Your task to perform on an android device: What's the weather like in Los Angeles? Image 0: 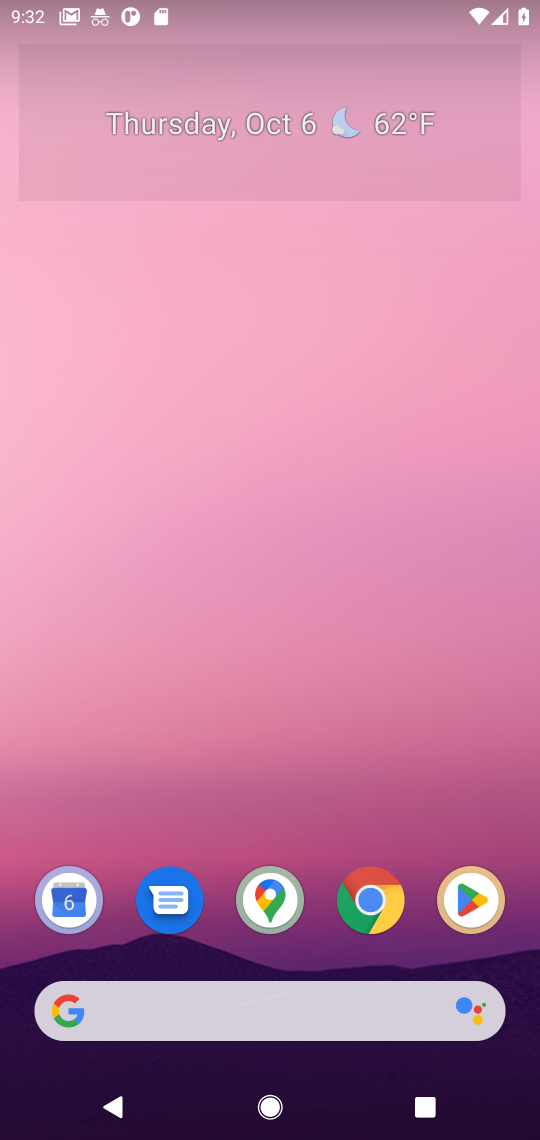
Step 0: press home button
Your task to perform on an android device: What's the weather like in Los Angeles? Image 1: 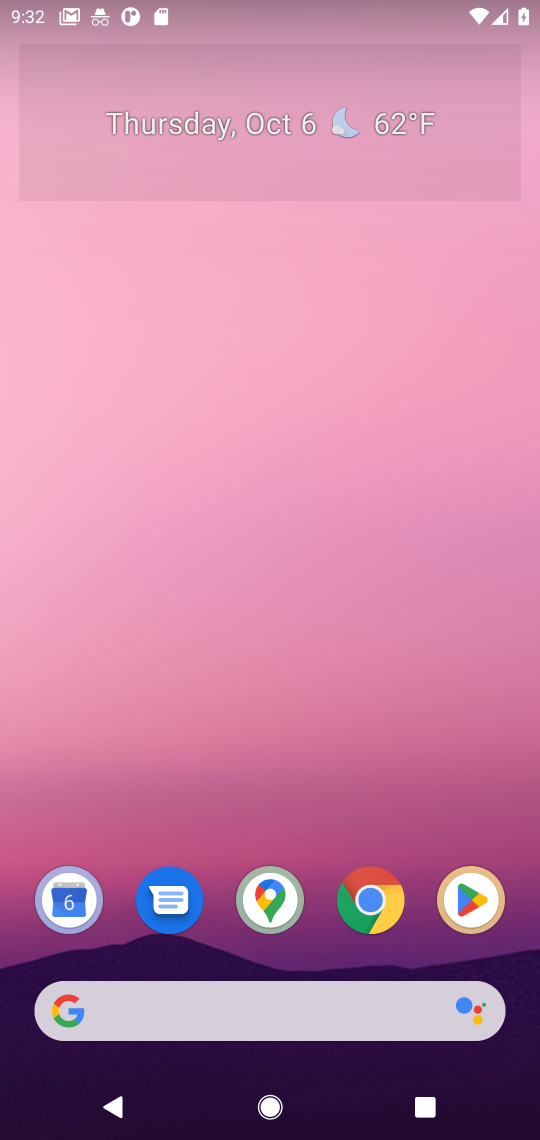
Step 1: click (304, 1023)
Your task to perform on an android device: What's the weather like in Los Angeles? Image 2: 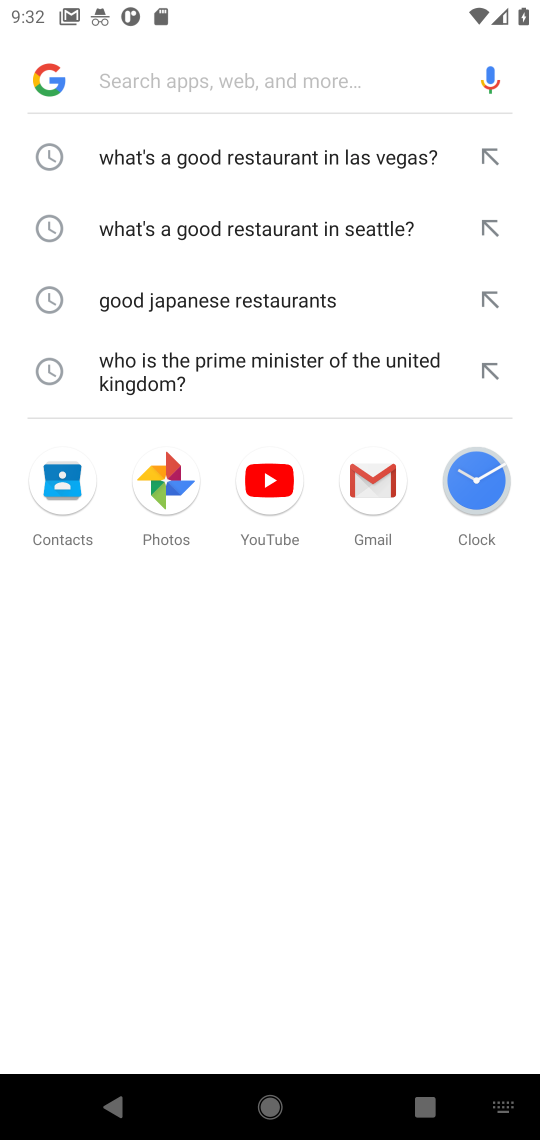
Step 2: type "What's the weather like in Los Angeles?"
Your task to perform on an android device: What's the weather like in Los Angeles? Image 3: 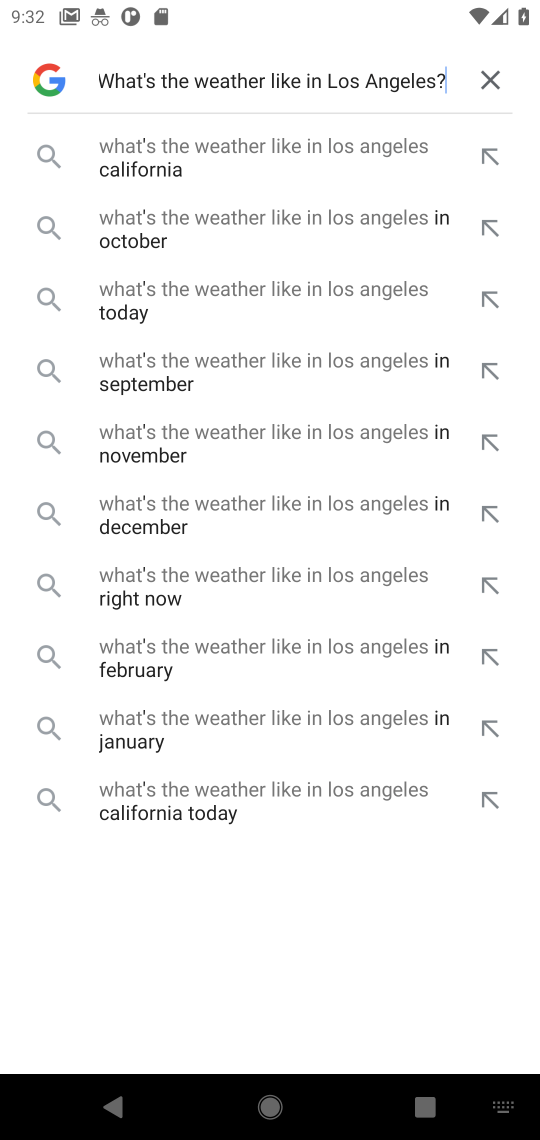
Step 3: press enter
Your task to perform on an android device: What's the weather like in Los Angeles? Image 4: 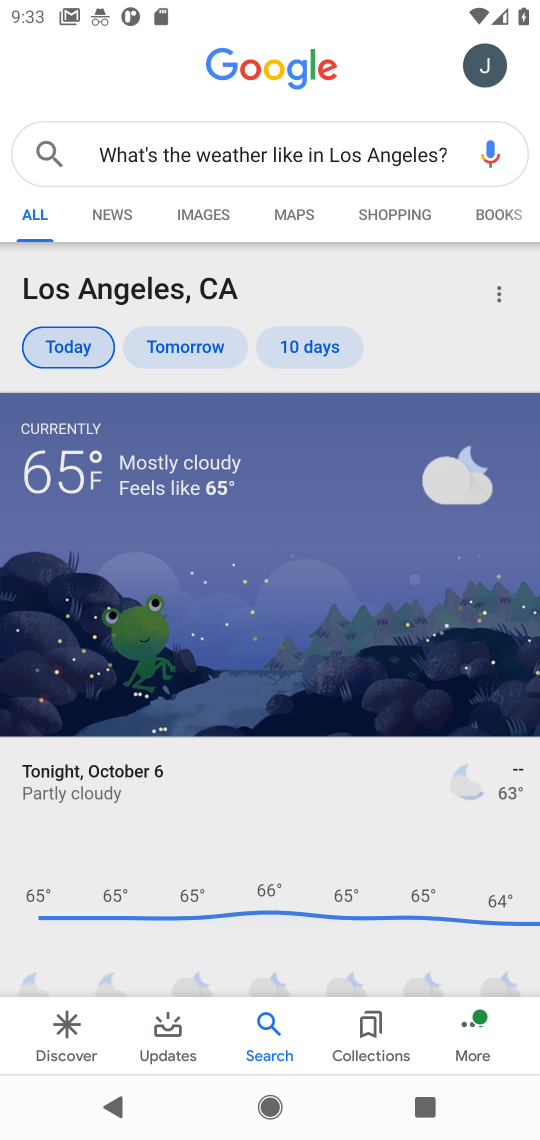
Step 4: task complete